Your task to perform on an android device: Search for Mexican restaurants on Maps Image 0: 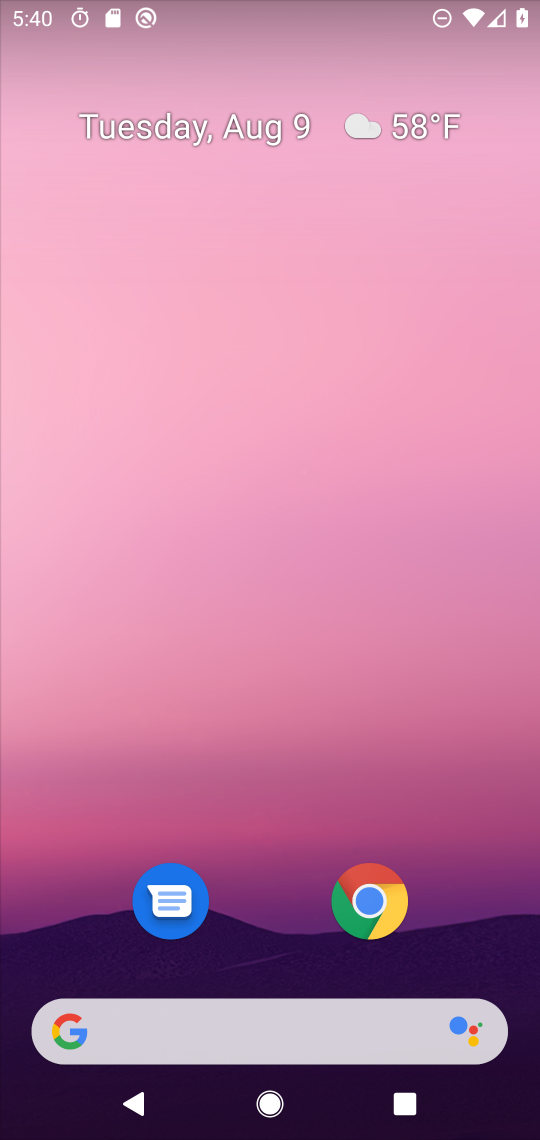
Step 0: drag from (291, 909) to (533, 662)
Your task to perform on an android device: Search for Mexican restaurants on Maps Image 1: 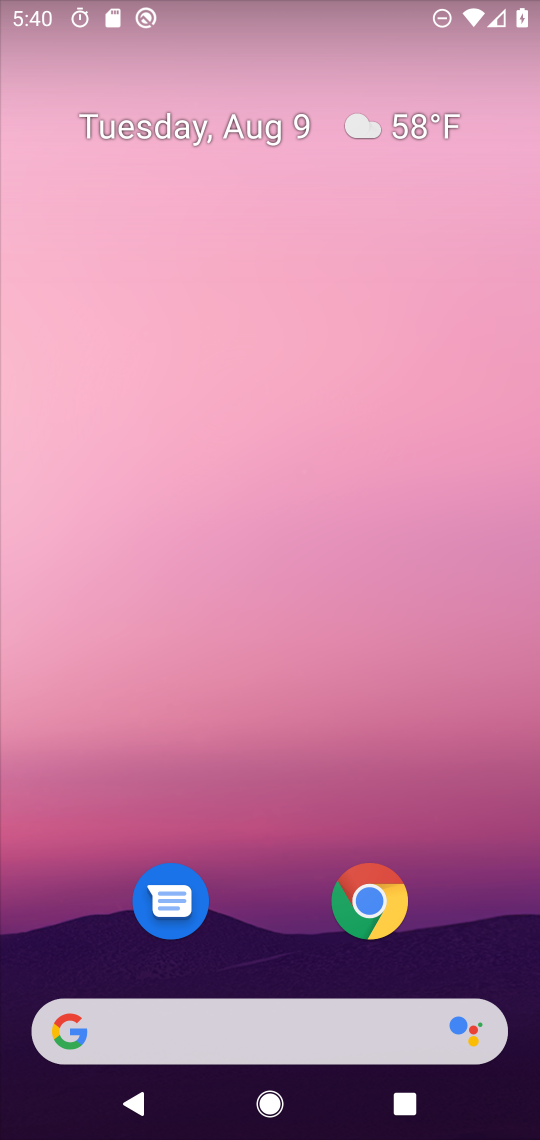
Step 1: drag from (254, 871) to (255, 35)
Your task to perform on an android device: Search for Mexican restaurants on Maps Image 2: 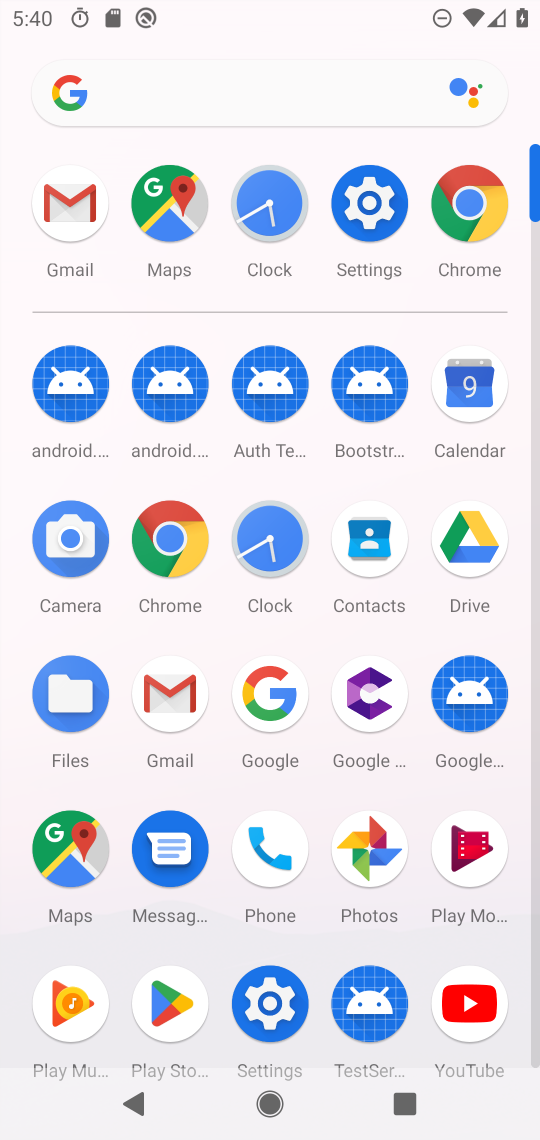
Step 2: click (159, 202)
Your task to perform on an android device: Search for Mexican restaurants on Maps Image 3: 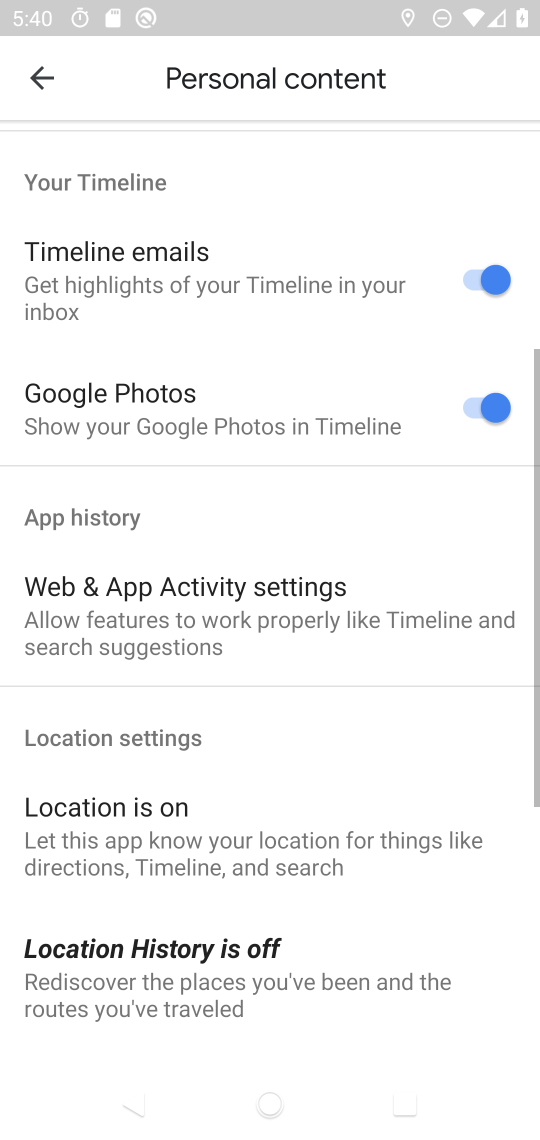
Step 3: click (39, 92)
Your task to perform on an android device: Search for Mexican restaurants on Maps Image 4: 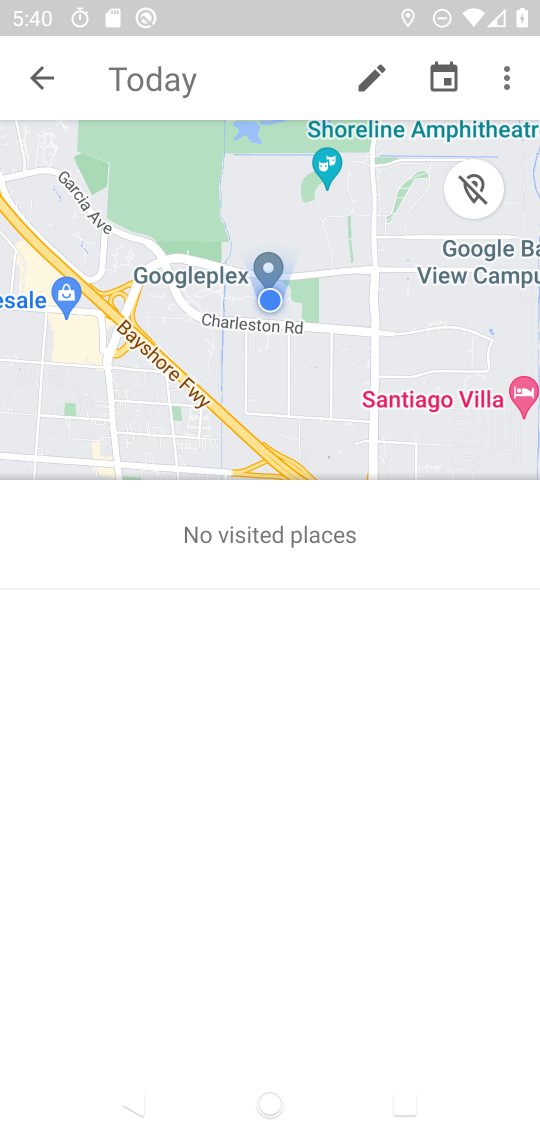
Step 4: click (49, 68)
Your task to perform on an android device: Search for Mexican restaurants on Maps Image 5: 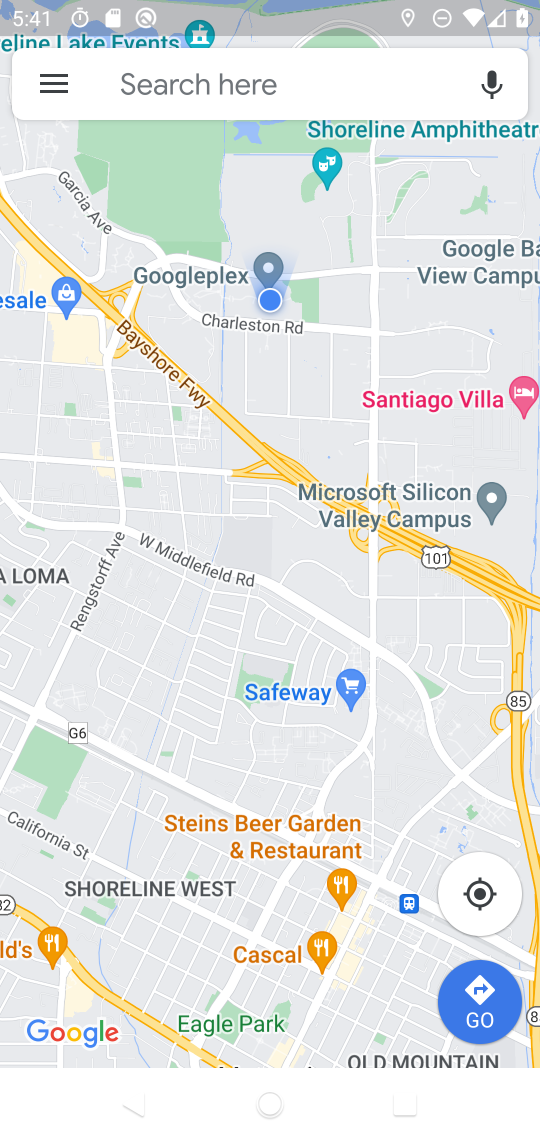
Step 5: click (192, 84)
Your task to perform on an android device: Search for Mexican restaurants on Maps Image 6: 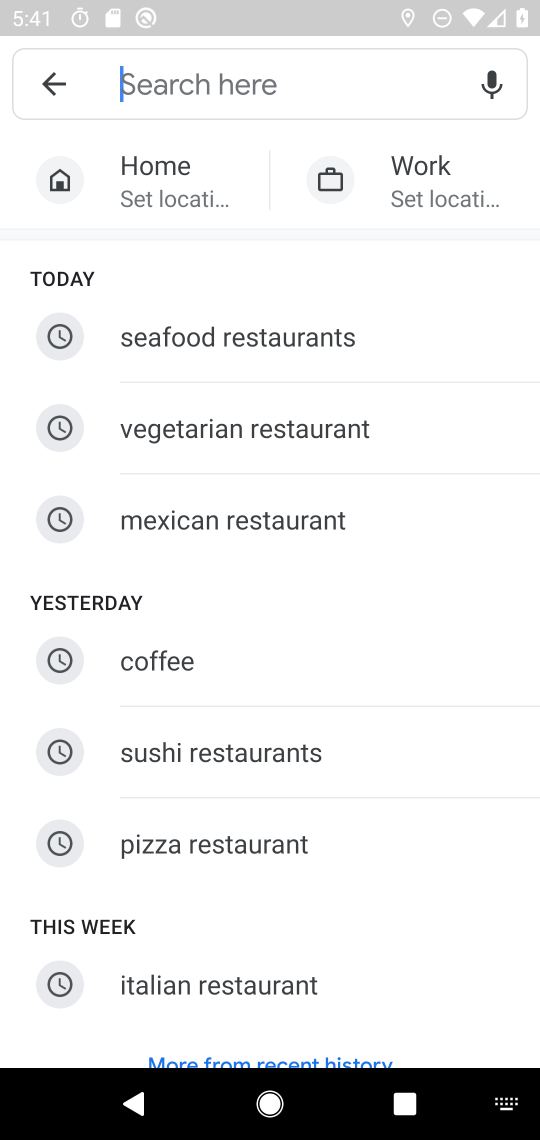
Step 6: type " Mexican restaurants "
Your task to perform on an android device: Search for Mexican restaurants on Maps Image 7: 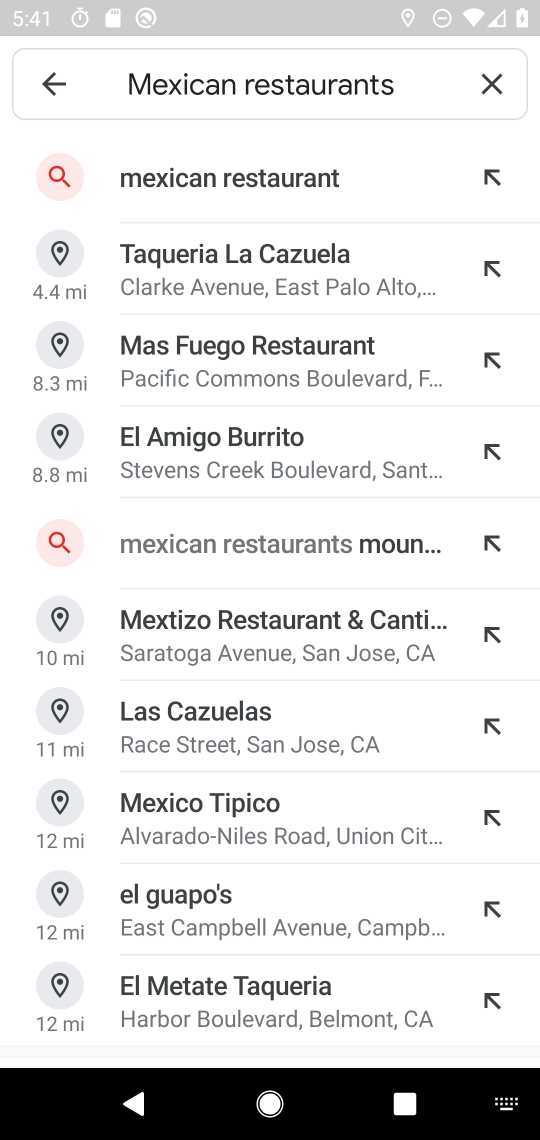
Step 7: click (284, 158)
Your task to perform on an android device: Search for Mexican restaurants on Maps Image 8: 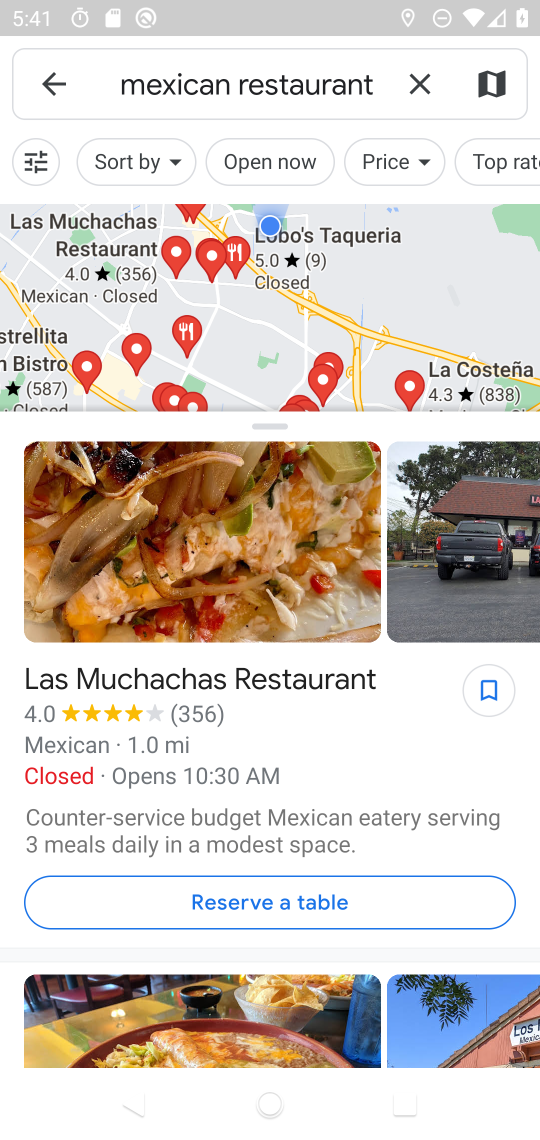
Step 8: task complete